Your task to perform on an android device: Go to Android settings Image 0: 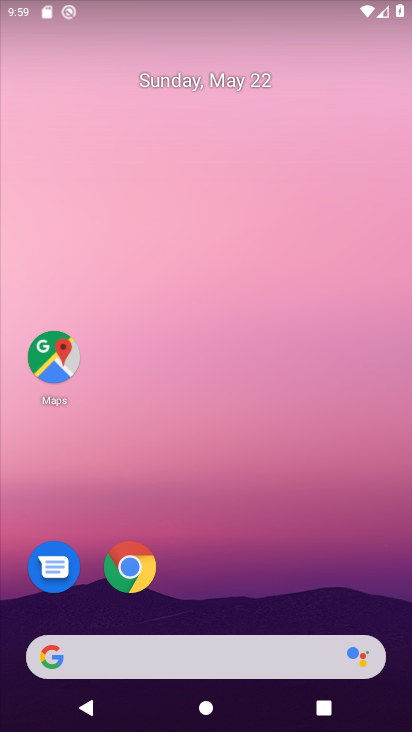
Step 0: drag from (213, 603) to (206, 103)
Your task to perform on an android device: Go to Android settings Image 1: 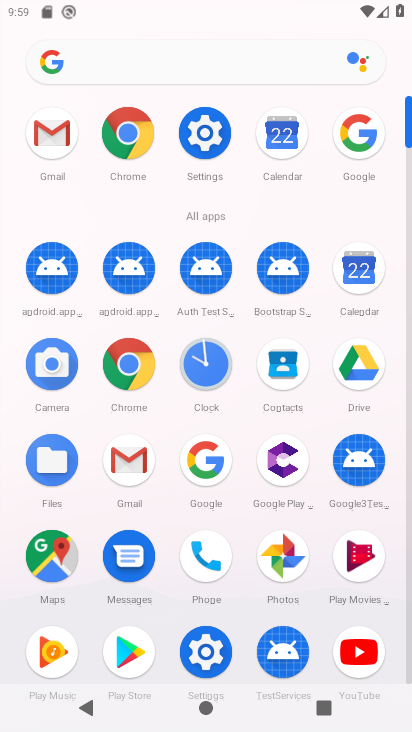
Step 1: click (198, 130)
Your task to perform on an android device: Go to Android settings Image 2: 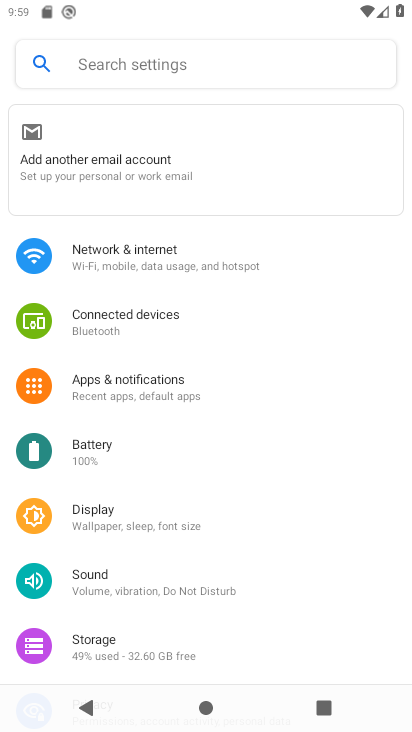
Step 2: drag from (187, 648) to (194, 93)
Your task to perform on an android device: Go to Android settings Image 3: 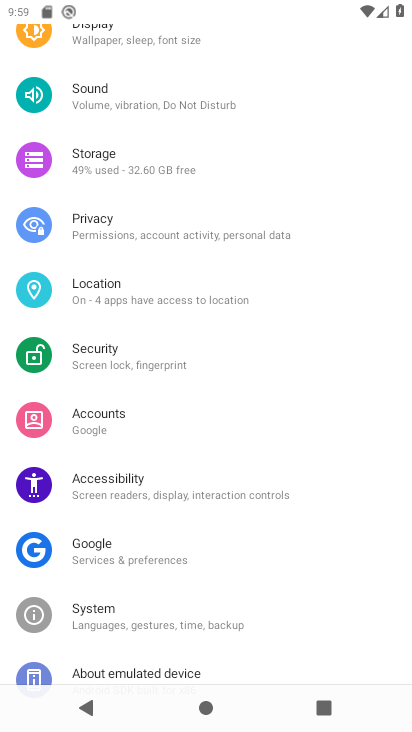
Step 3: drag from (151, 649) to (164, 275)
Your task to perform on an android device: Go to Android settings Image 4: 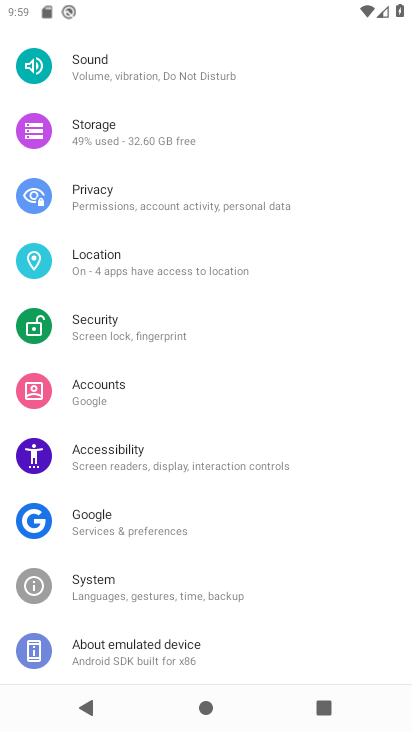
Step 4: click (177, 645)
Your task to perform on an android device: Go to Android settings Image 5: 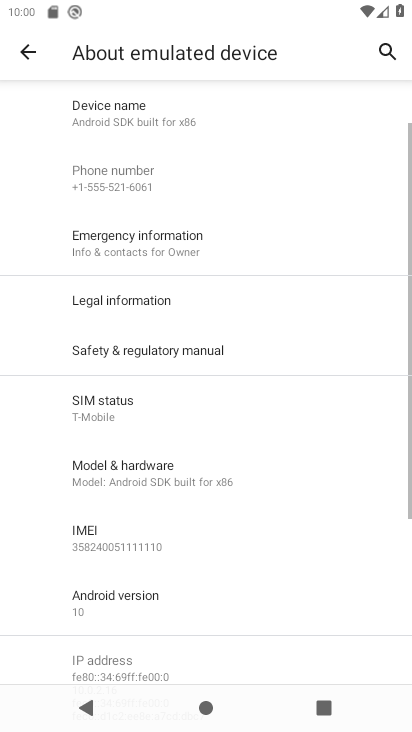
Step 5: click (124, 602)
Your task to perform on an android device: Go to Android settings Image 6: 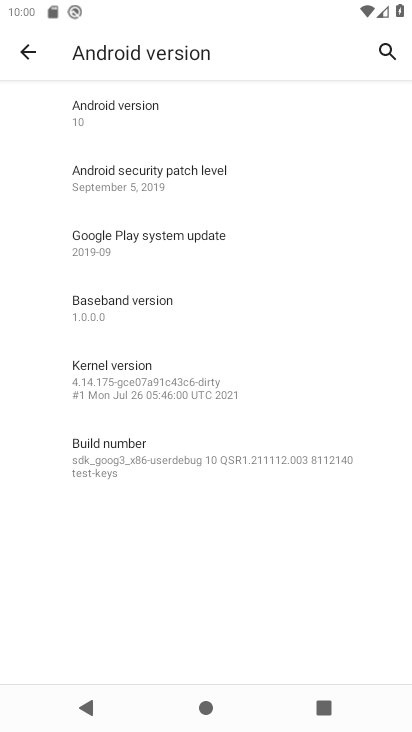
Step 6: task complete